Your task to perform on an android device: uninstall "Nova Launcher" Image 0: 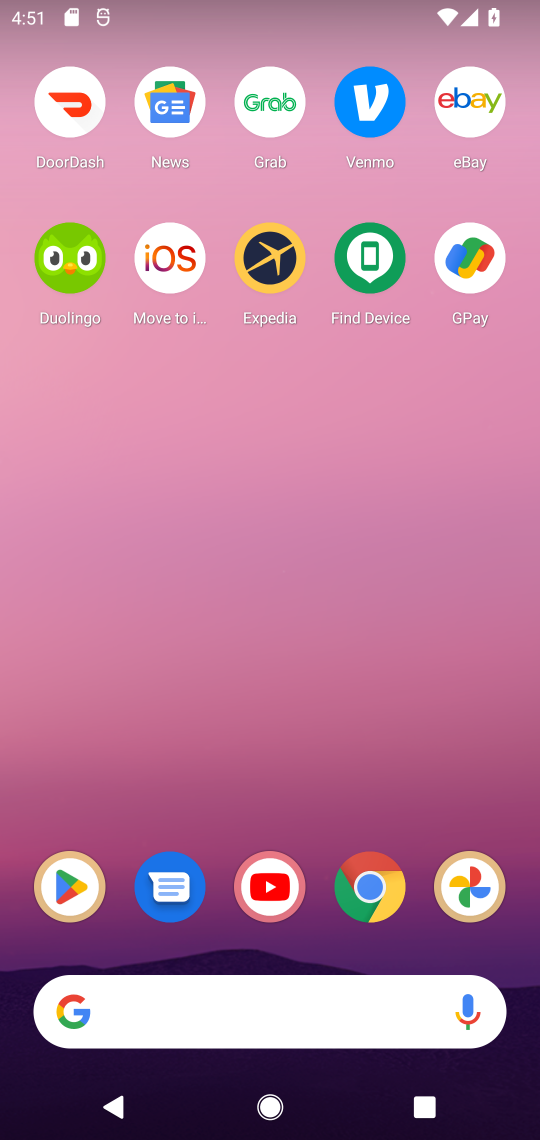
Step 0: click (65, 887)
Your task to perform on an android device: uninstall "Nova Launcher" Image 1: 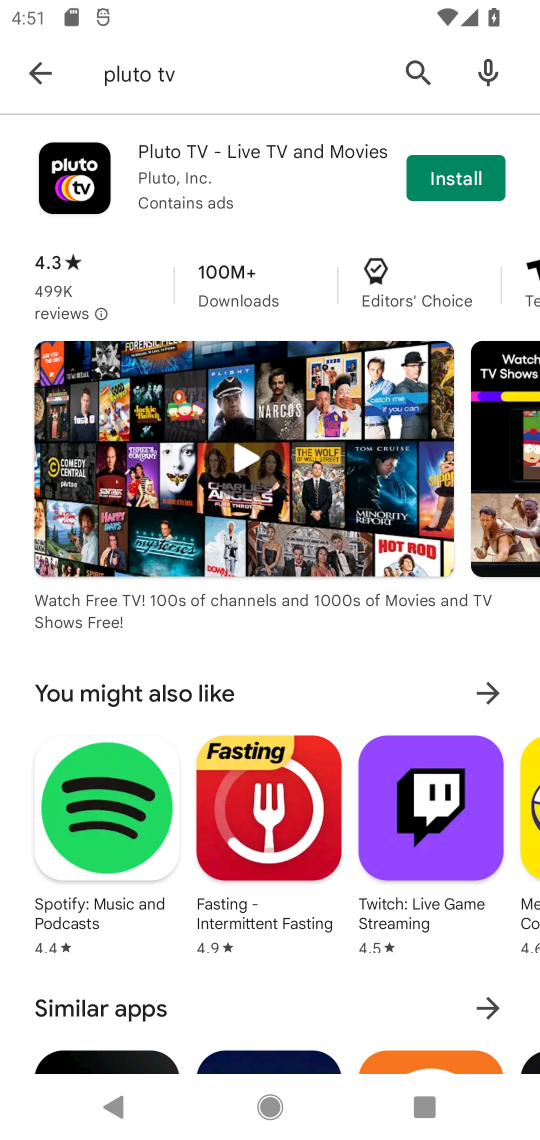
Step 1: click (409, 60)
Your task to perform on an android device: uninstall "Nova Launcher" Image 2: 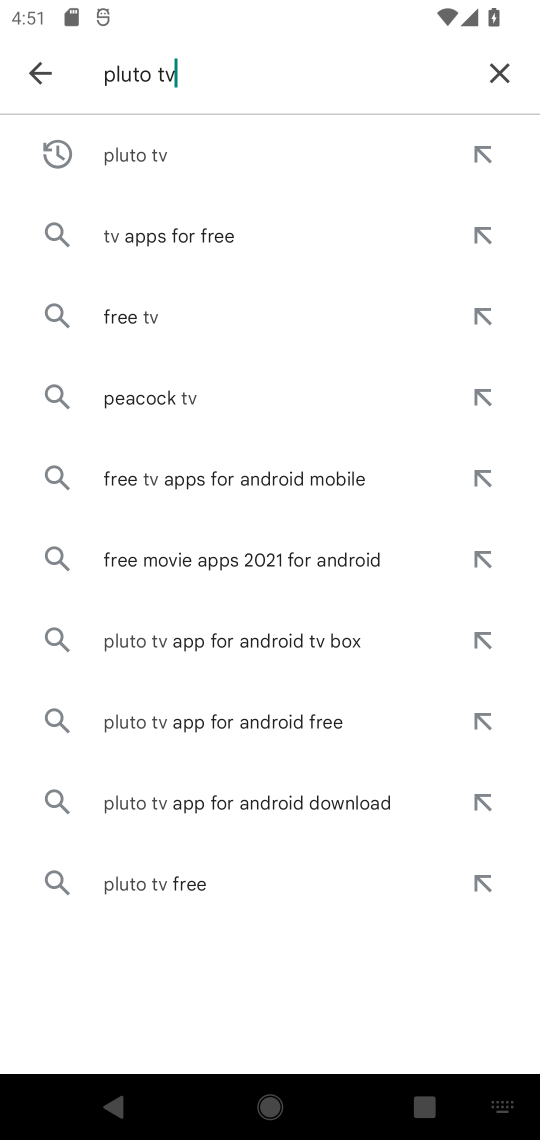
Step 2: click (496, 64)
Your task to perform on an android device: uninstall "Nova Launcher" Image 3: 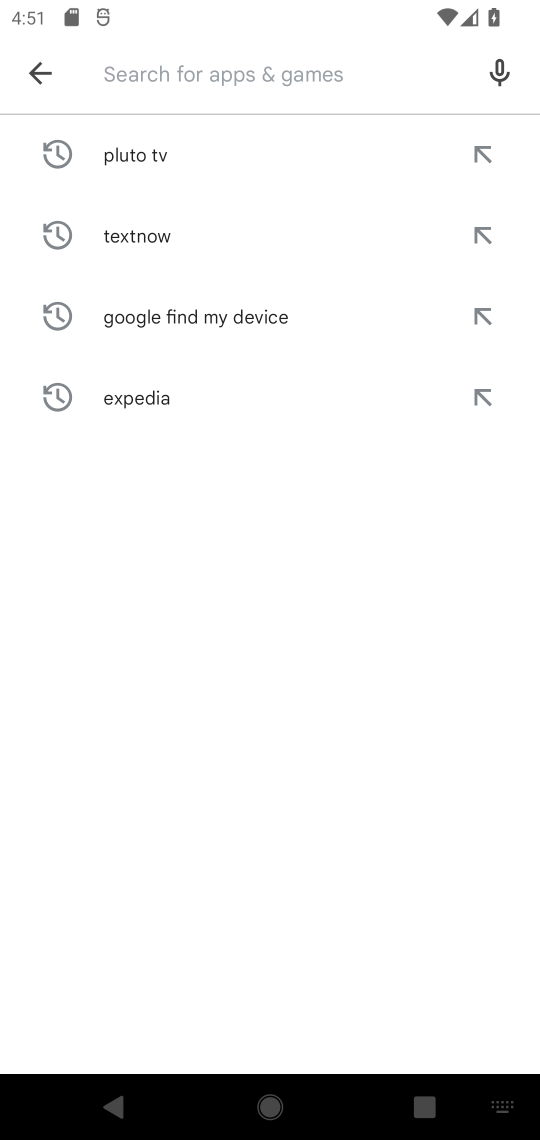
Step 3: type "Nova"
Your task to perform on an android device: uninstall "Nova Launcher" Image 4: 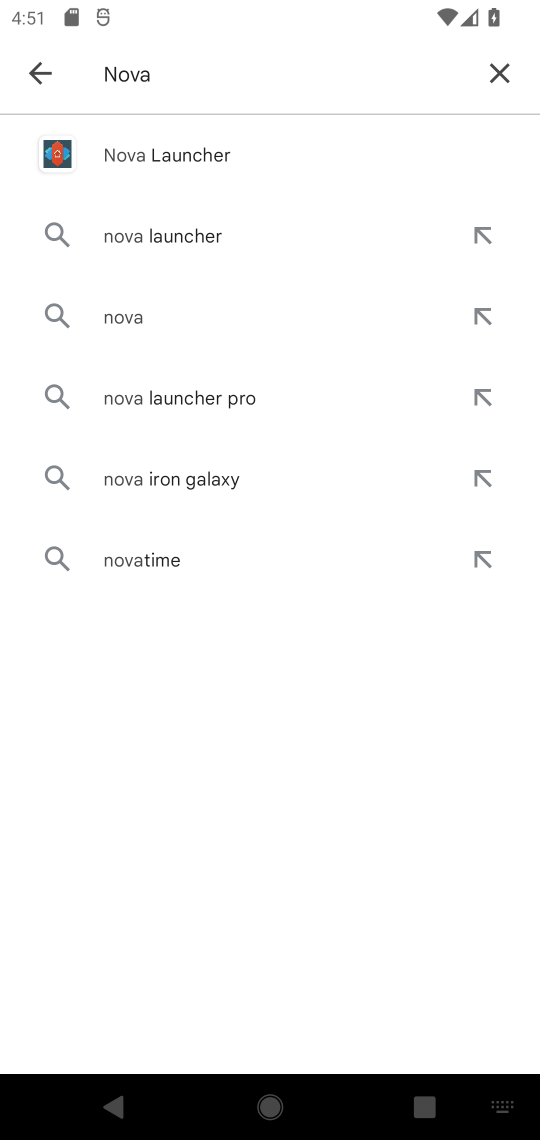
Step 4: click (141, 161)
Your task to perform on an android device: uninstall "Nova Launcher" Image 5: 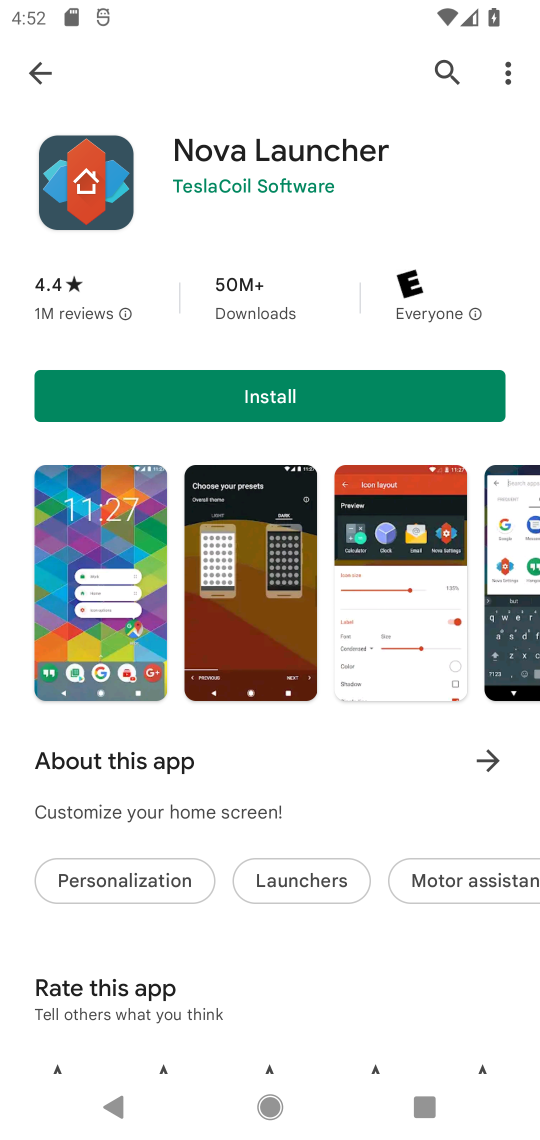
Step 5: task complete